Your task to perform on an android device: find photos in the google photos app Image 0: 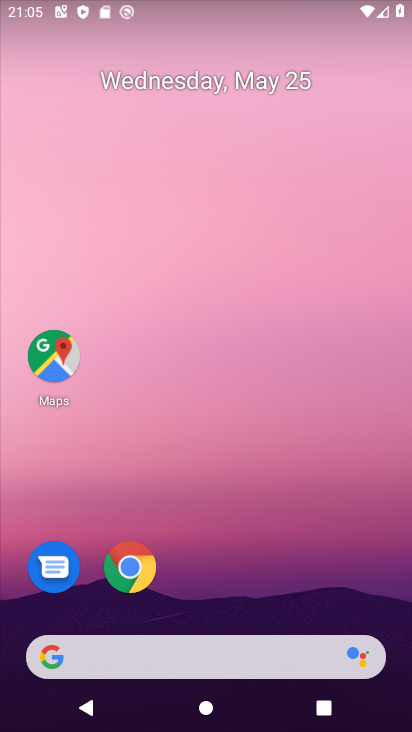
Step 0: drag from (239, 576) to (287, 57)
Your task to perform on an android device: find photos in the google photos app Image 1: 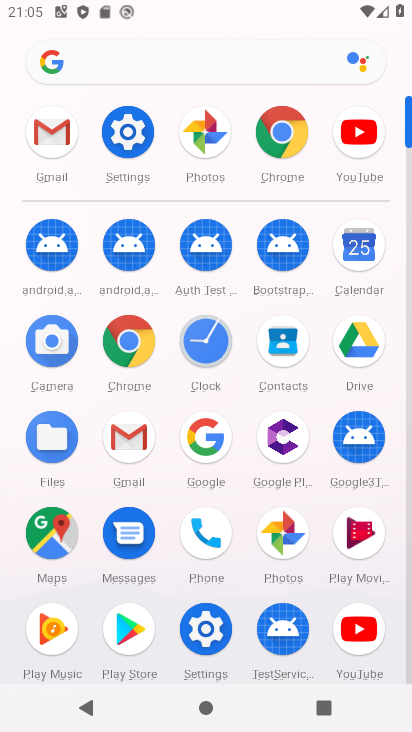
Step 1: click (206, 133)
Your task to perform on an android device: find photos in the google photos app Image 2: 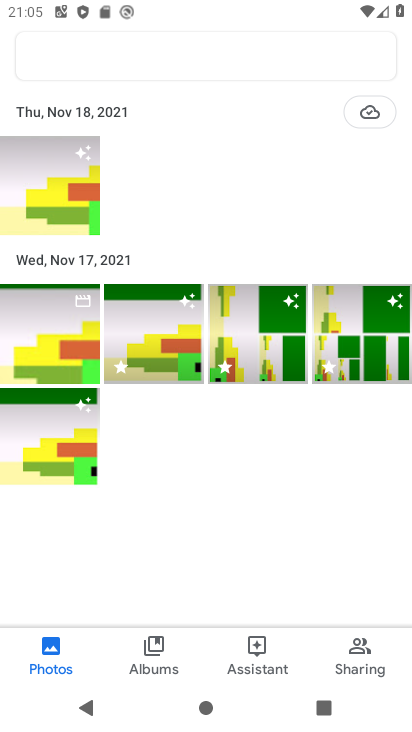
Step 2: click (45, 659)
Your task to perform on an android device: find photos in the google photos app Image 3: 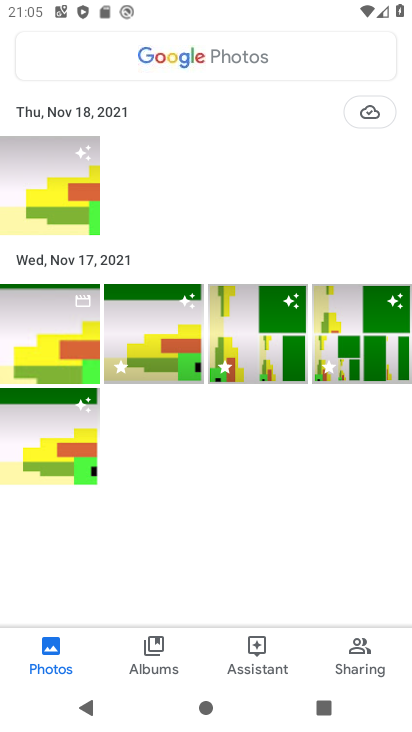
Step 3: task complete